Your task to perform on an android device: turn on bluetooth scan Image 0: 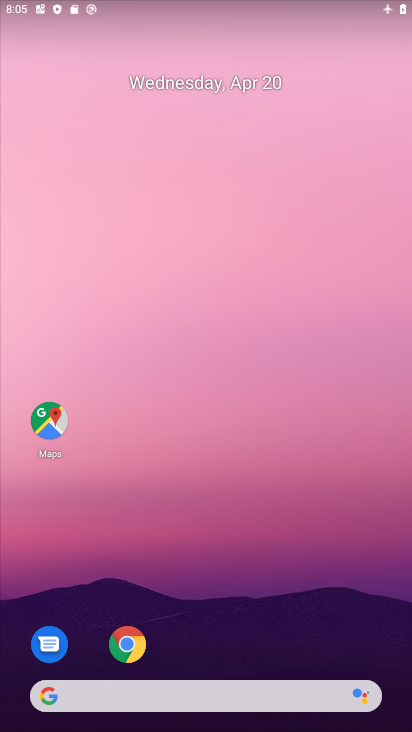
Step 0: drag from (346, 625) to (278, 118)
Your task to perform on an android device: turn on bluetooth scan Image 1: 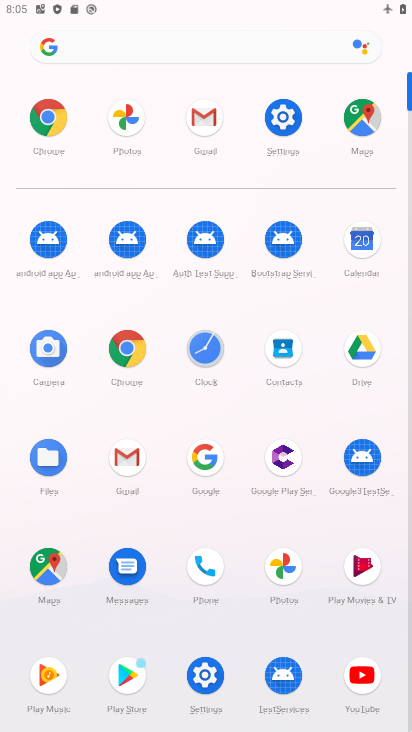
Step 1: click (275, 110)
Your task to perform on an android device: turn on bluetooth scan Image 2: 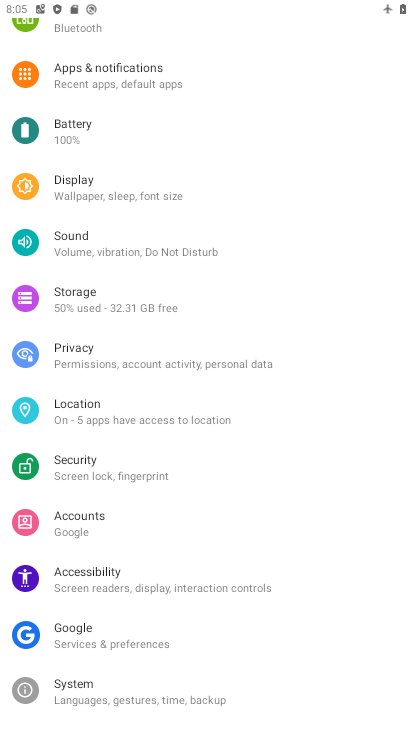
Step 2: click (113, 402)
Your task to perform on an android device: turn on bluetooth scan Image 3: 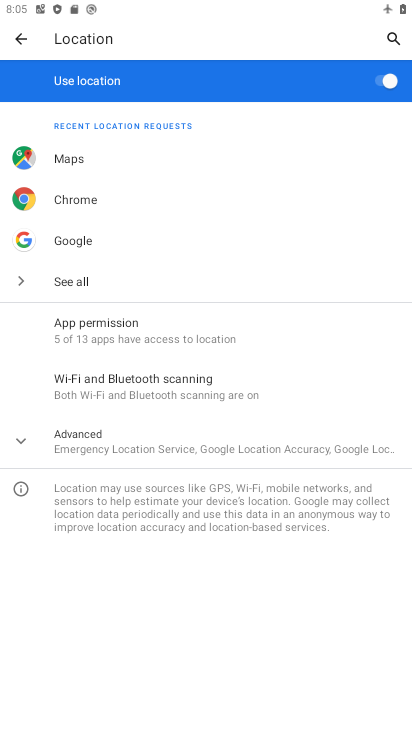
Step 3: click (105, 392)
Your task to perform on an android device: turn on bluetooth scan Image 4: 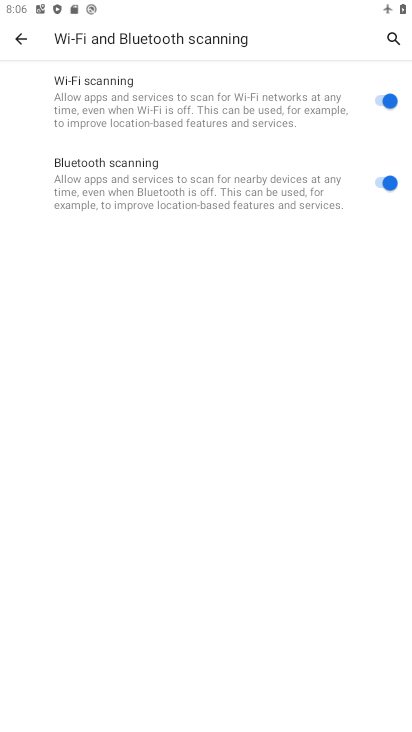
Step 4: task complete